Your task to perform on an android device: See recent photos Image 0: 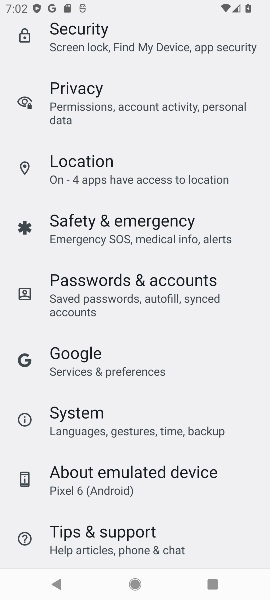
Step 0: press home button
Your task to perform on an android device: See recent photos Image 1: 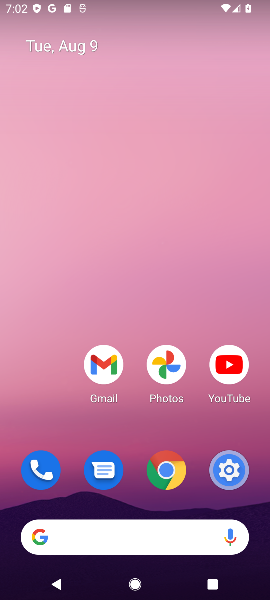
Step 1: drag from (92, 585) to (101, 189)
Your task to perform on an android device: See recent photos Image 2: 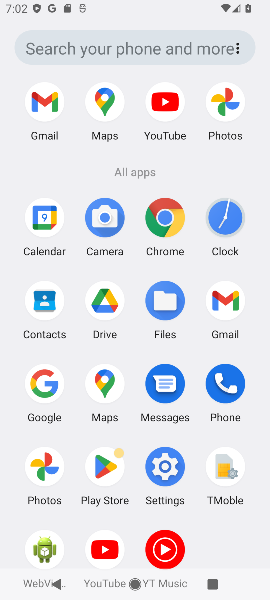
Step 2: click (218, 118)
Your task to perform on an android device: See recent photos Image 3: 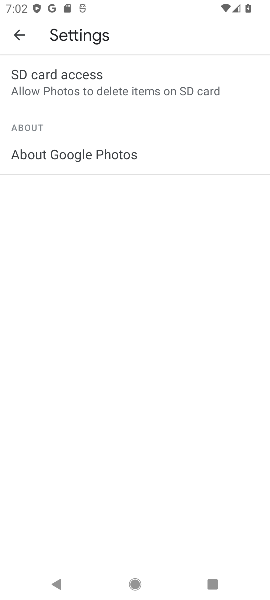
Step 3: click (31, 31)
Your task to perform on an android device: See recent photos Image 4: 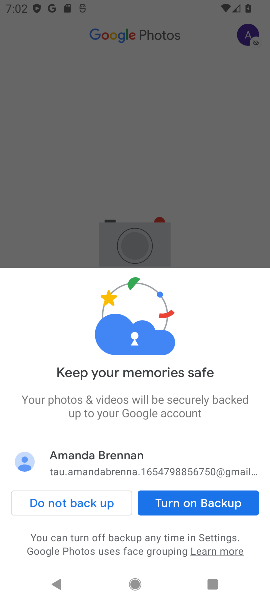
Step 4: click (92, 500)
Your task to perform on an android device: See recent photos Image 5: 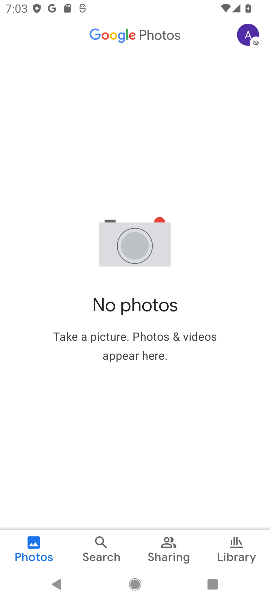
Step 5: click (101, 544)
Your task to perform on an android device: See recent photos Image 6: 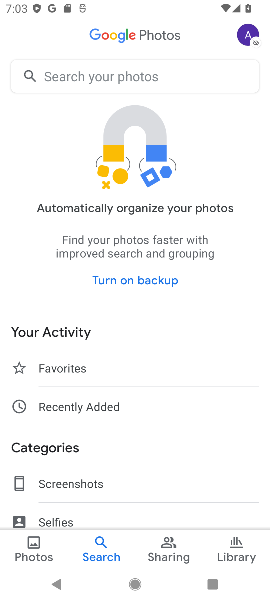
Step 6: task complete